Your task to perform on an android device: toggle priority inbox in the gmail app Image 0: 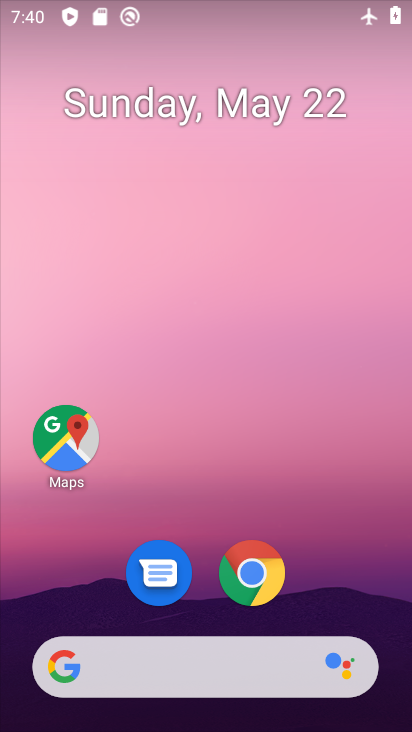
Step 0: drag from (326, 549) to (337, 191)
Your task to perform on an android device: toggle priority inbox in the gmail app Image 1: 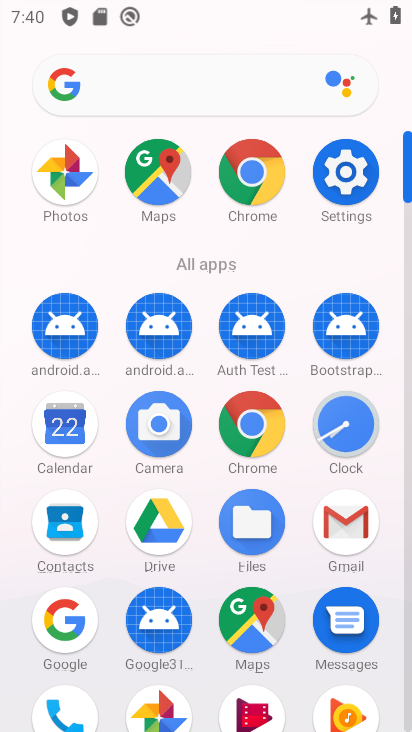
Step 1: click (341, 542)
Your task to perform on an android device: toggle priority inbox in the gmail app Image 2: 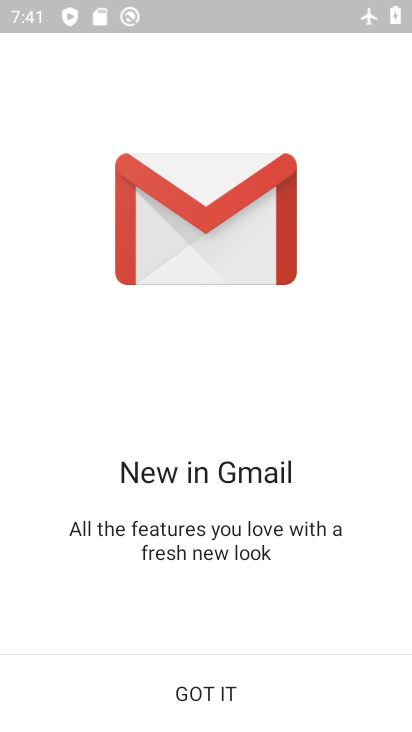
Step 2: click (170, 696)
Your task to perform on an android device: toggle priority inbox in the gmail app Image 3: 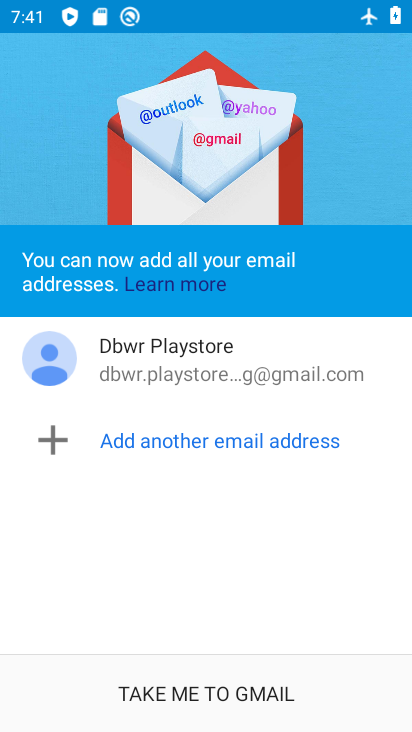
Step 3: click (172, 691)
Your task to perform on an android device: toggle priority inbox in the gmail app Image 4: 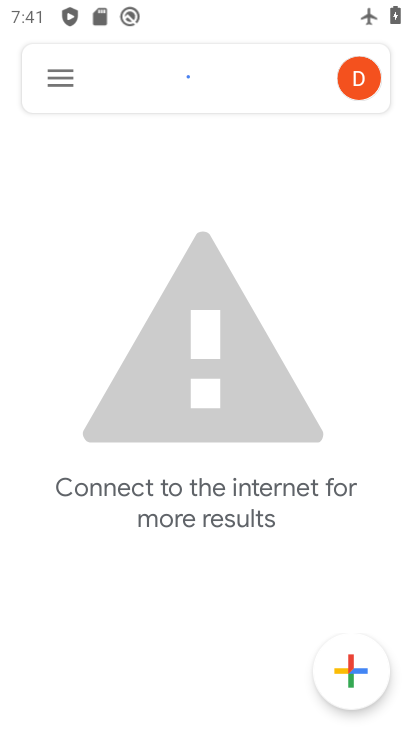
Step 4: click (62, 74)
Your task to perform on an android device: toggle priority inbox in the gmail app Image 5: 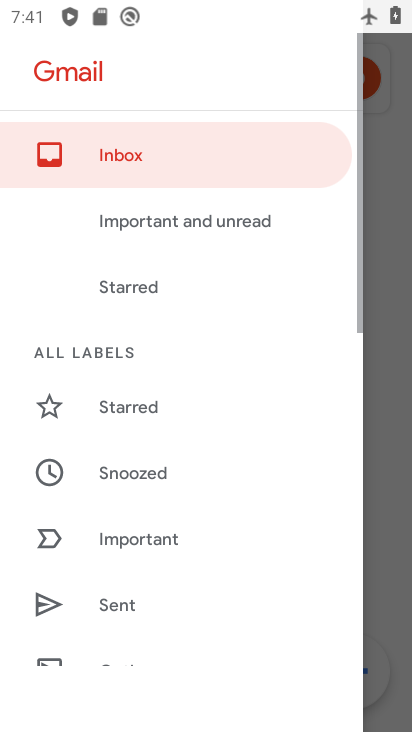
Step 5: drag from (212, 651) to (247, 115)
Your task to perform on an android device: toggle priority inbox in the gmail app Image 6: 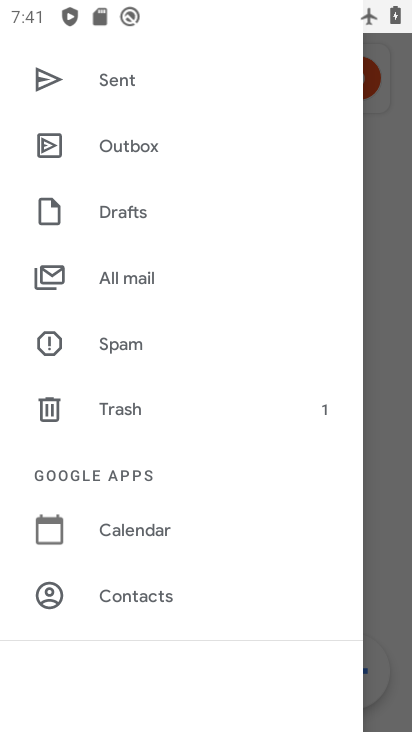
Step 6: drag from (213, 574) to (264, 65)
Your task to perform on an android device: toggle priority inbox in the gmail app Image 7: 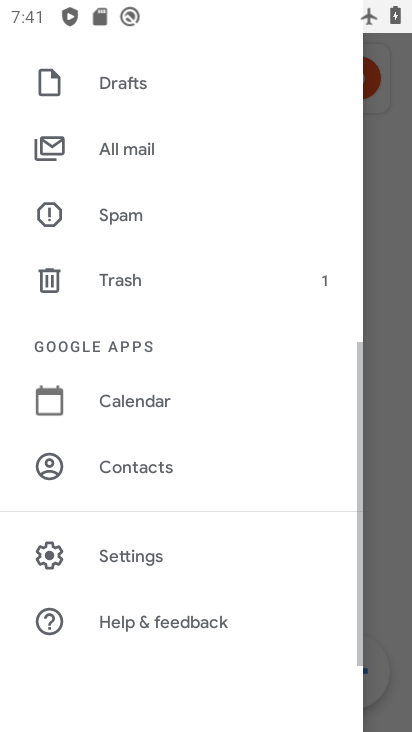
Step 7: click (158, 552)
Your task to perform on an android device: toggle priority inbox in the gmail app Image 8: 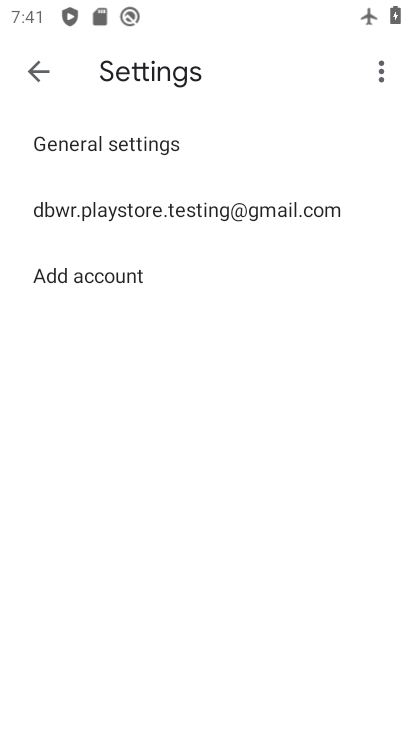
Step 8: click (219, 211)
Your task to perform on an android device: toggle priority inbox in the gmail app Image 9: 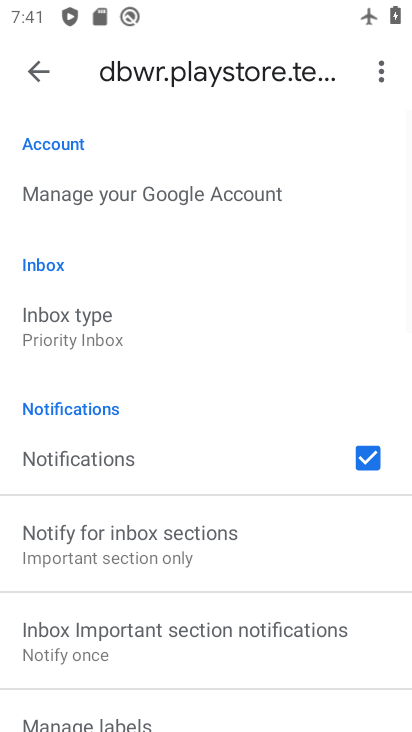
Step 9: click (97, 341)
Your task to perform on an android device: toggle priority inbox in the gmail app Image 10: 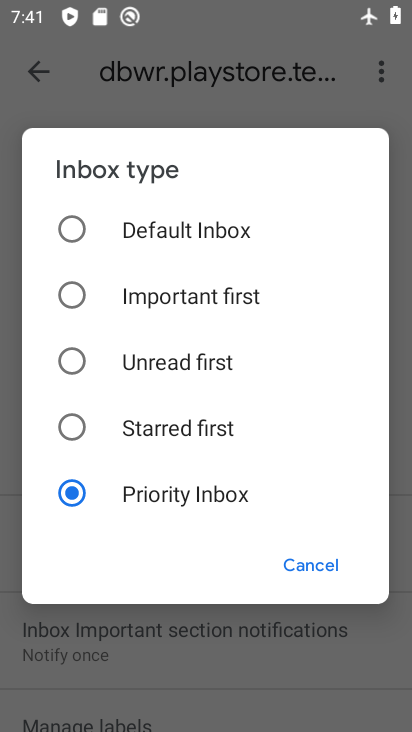
Step 10: click (74, 230)
Your task to perform on an android device: toggle priority inbox in the gmail app Image 11: 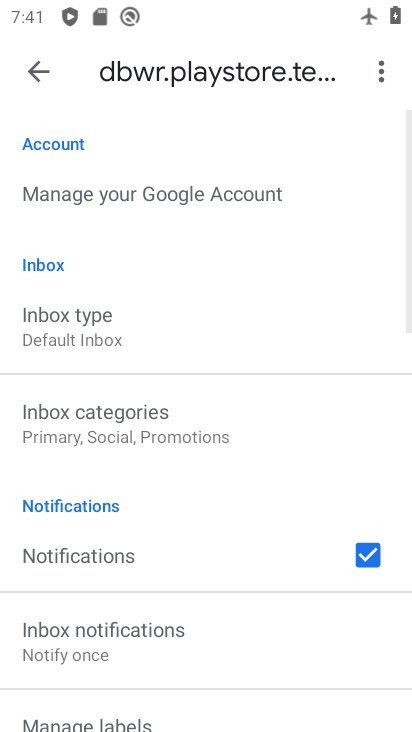
Step 11: task complete